Your task to perform on an android device: Go to Android settings Image 0: 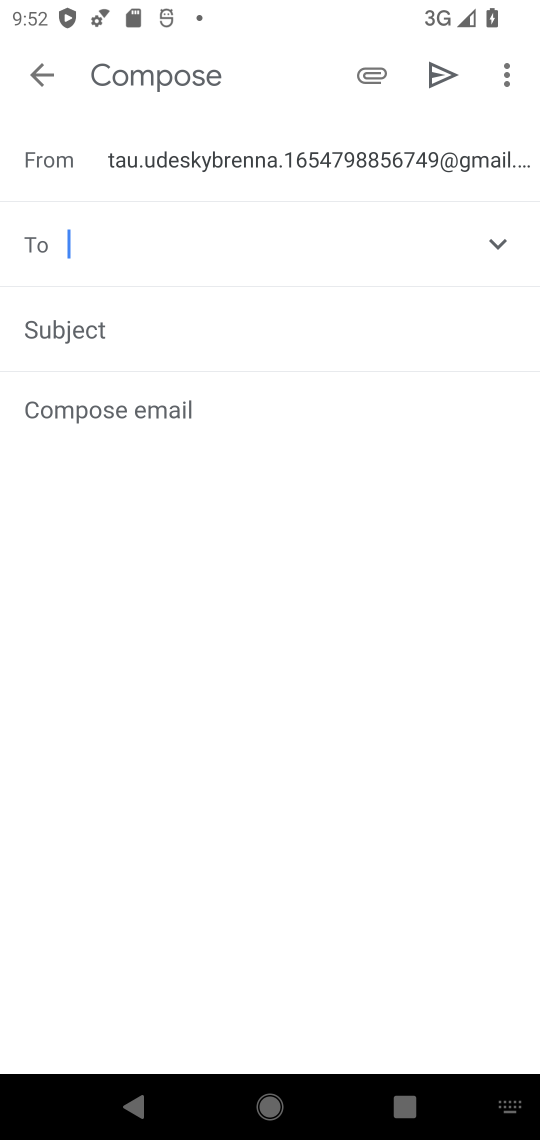
Step 0: press home button
Your task to perform on an android device: Go to Android settings Image 1: 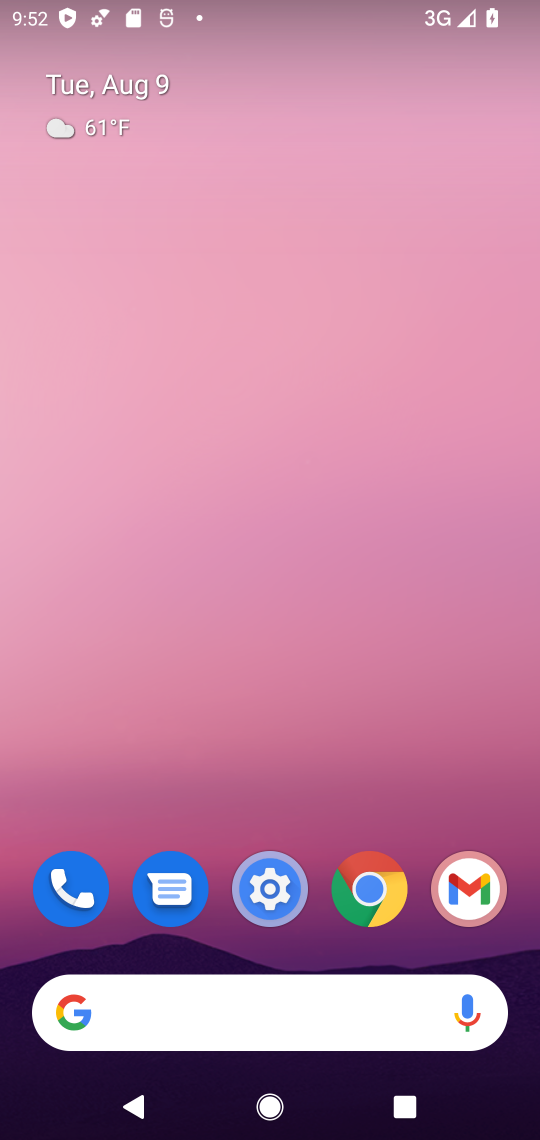
Step 1: drag from (404, 947) to (537, 355)
Your task to perform on an android device: Go to Android settings Image 2: 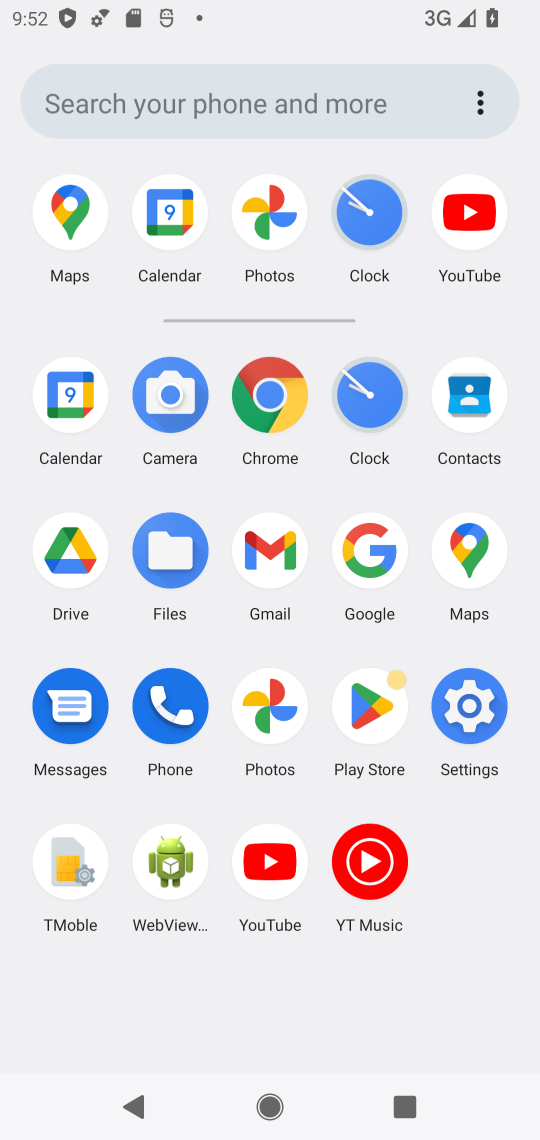
Step 2: click (445, 703)
Your task to perform on an android device: Go to Android settings Image 3: 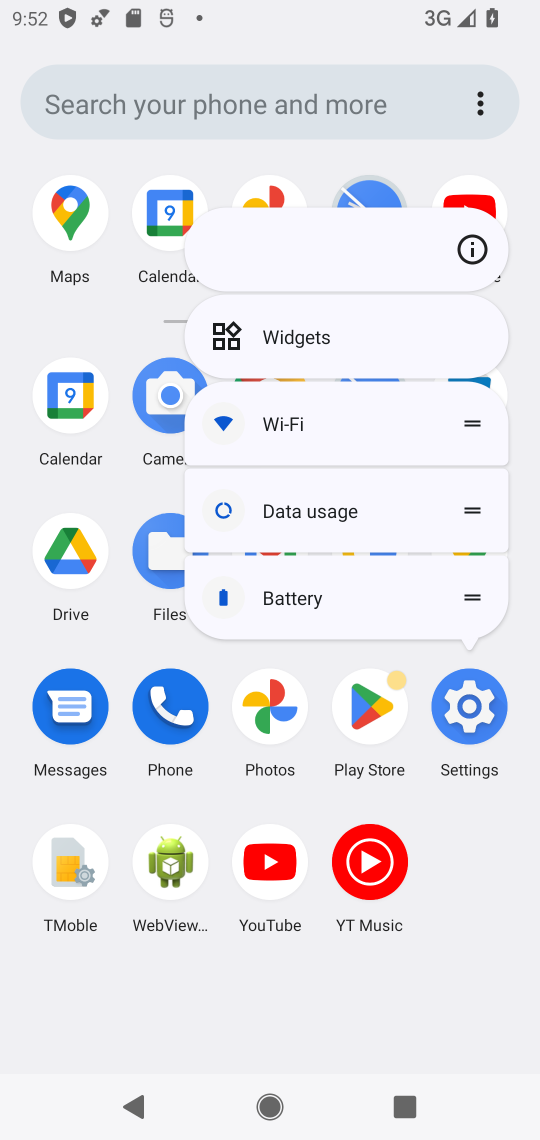
Step 3: click (453, 705)
Your task to perform on an android device: Go to Android settings Image 4: 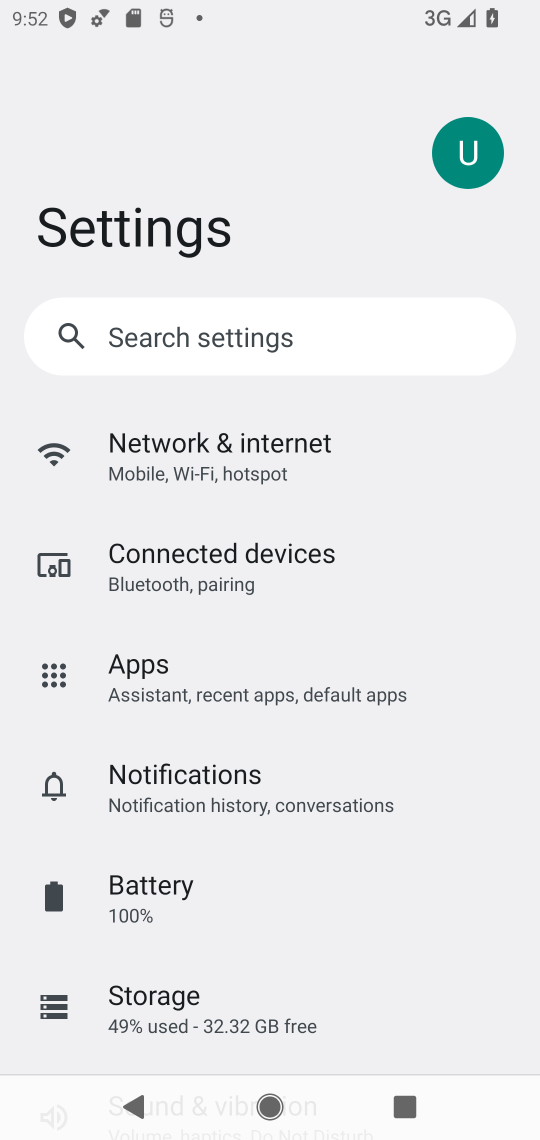
Step 4: task complete